Your task to perform on an android device: Open the phone app and click the voicemail tab. Image 0: 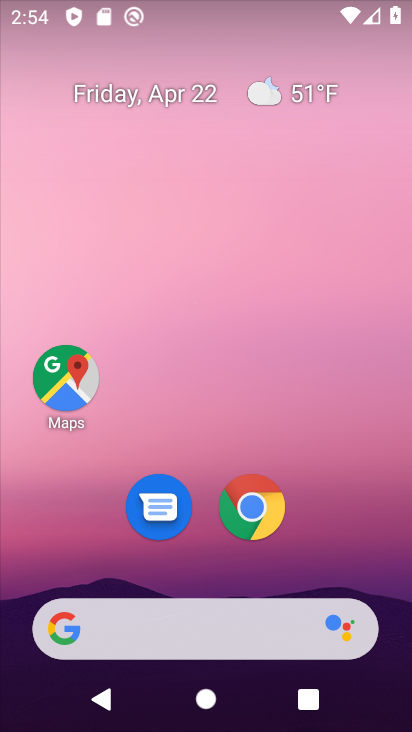
Step 0: drag from (204, 577) to (328, 16)
Your task to perform on an android device: Open the phone app and click the voicemail tab. Image 1: 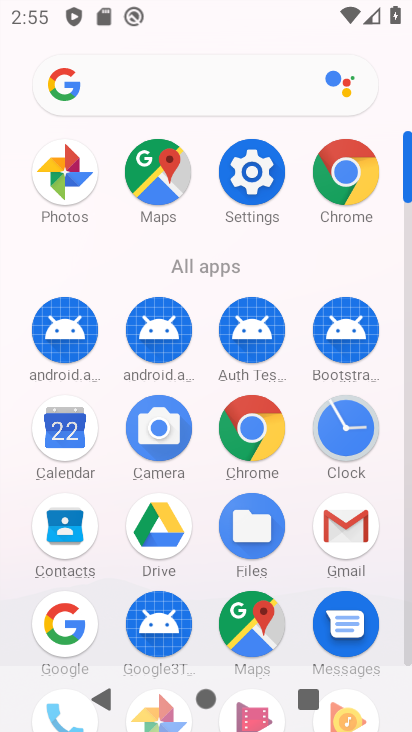
Step 1: drag from (205, 574) to (192, 216)
Your task to perform on an android device: Open the phone app and click the voicemail tab. Image 2: 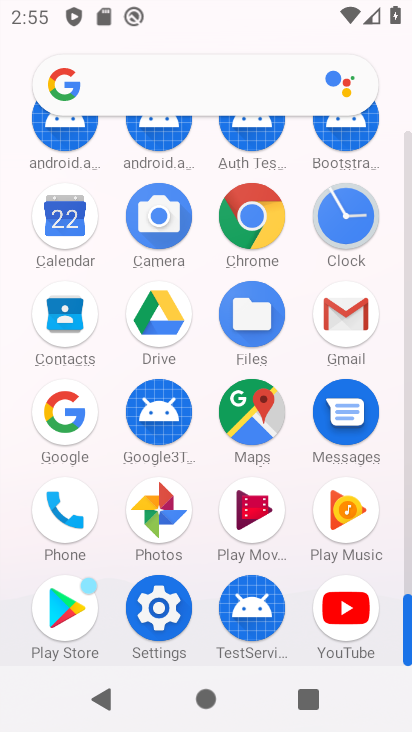
Step 2: click (67, 512)
Your task to perform on an android device: Open the phone app and click the voicemail tab. Image 3: 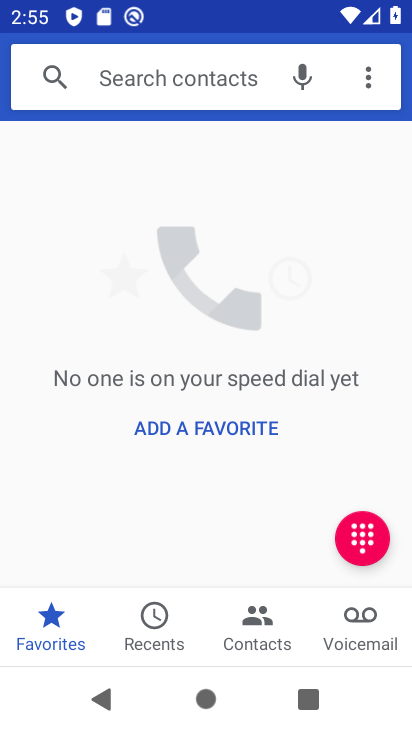
Step 3: click (348, 628)
Your task to perform on an android device: Open the phone app and click the voicemail tab. Image 4: 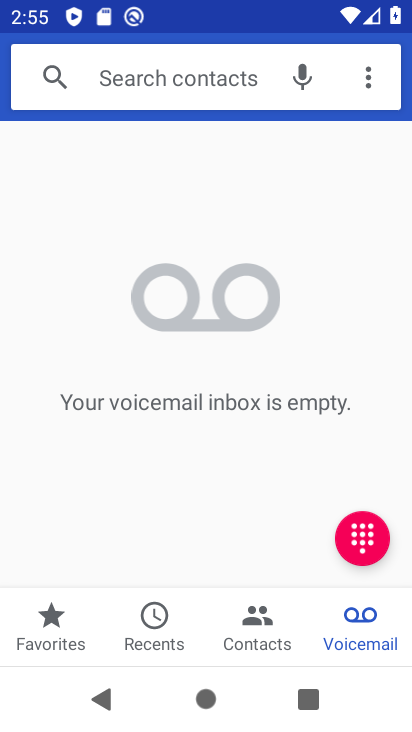
Step 4: task complete